Your task to perform on an android device: Open Android settings Image 0: 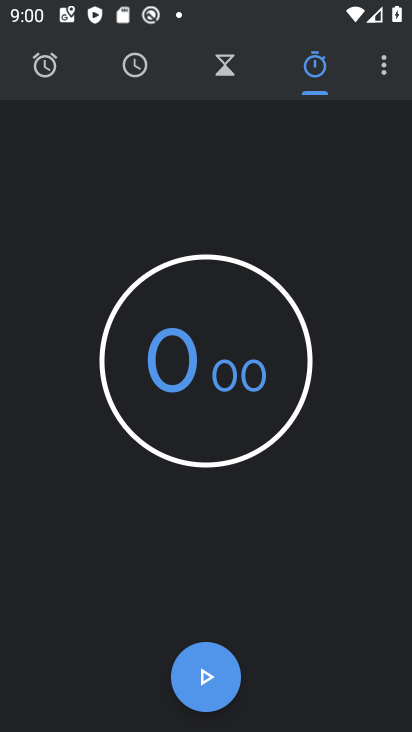
Step 0: press back button
Your task to perform on an android device: Open Android settings Image 1: 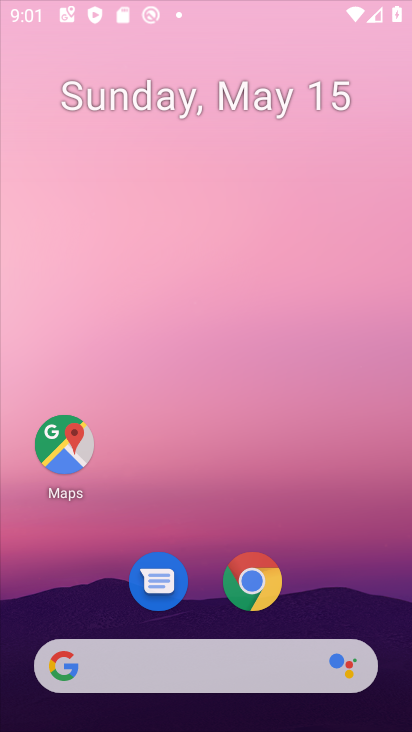
Step 1: press home button
Your task to perform on an android device: Open Android settings Image 2: 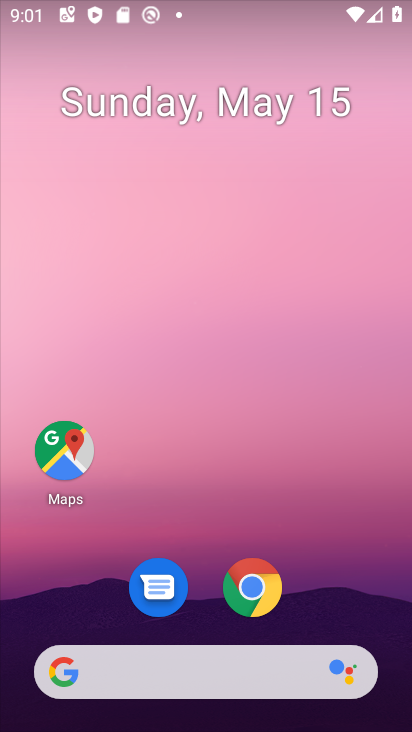
Step 2: drag from (382, 645) to (316, 73)
Your task to perform on an android device: Open Android settings Image 3: 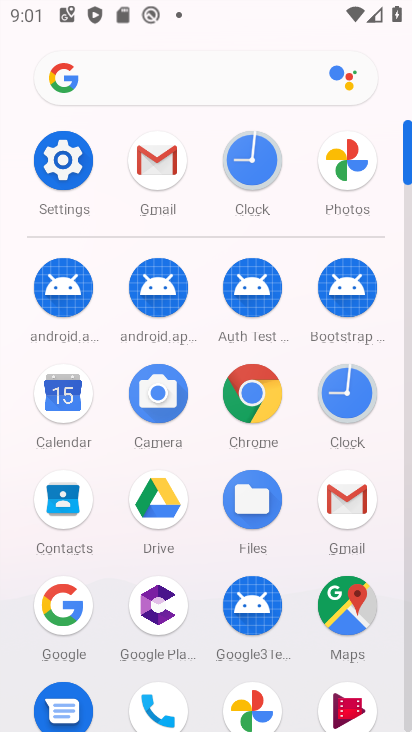
Step 3: click (67, 165)
Your task to perform on an android device: Open Android settings Image 4: 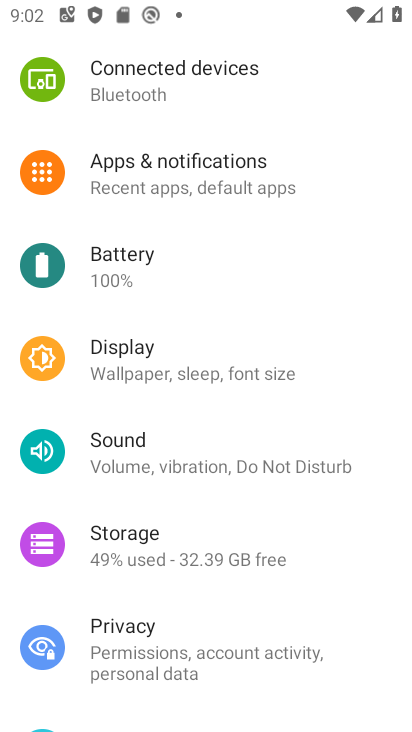
Step 4: drag from (129, 673) to (228, 141)
Your task to perform on an android device: Open Android settings Image 5: 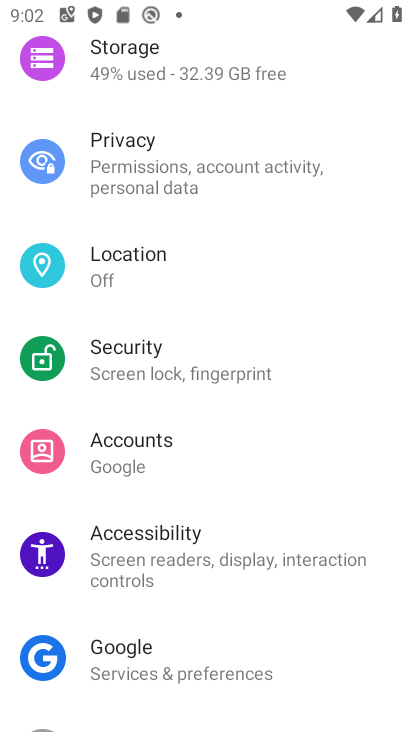
Step 5: drag from (176, 635) to (232, 130)
Your task to perform on an android device: Open Android settings Image 6: 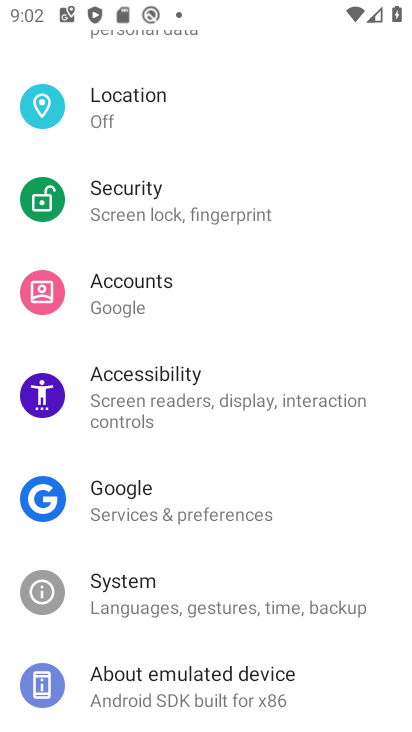
Step 6: click (145, 676)
Your task to perform on an android device: Open Android settings Image 7: 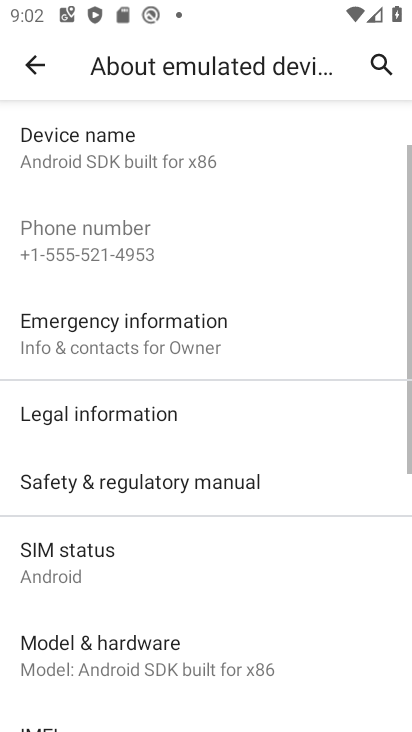
Step 7: drag from (131, 653) to (216, 216)
Your task to perform on an android device: Open Android settings Image 8: 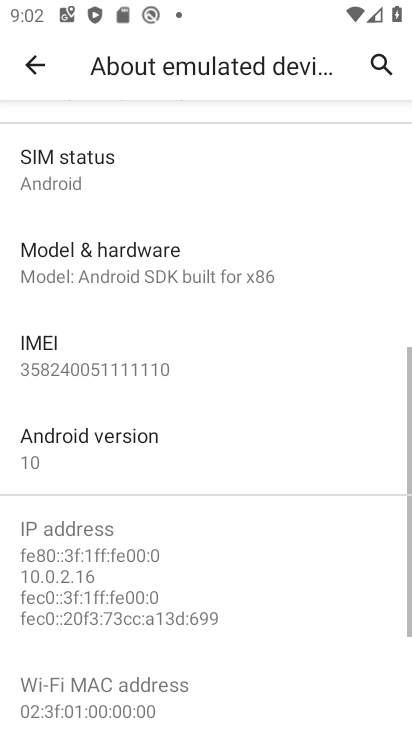
Step 8: click (140, 454)
Your task to perform on an android device: Open Android settings Image 9: 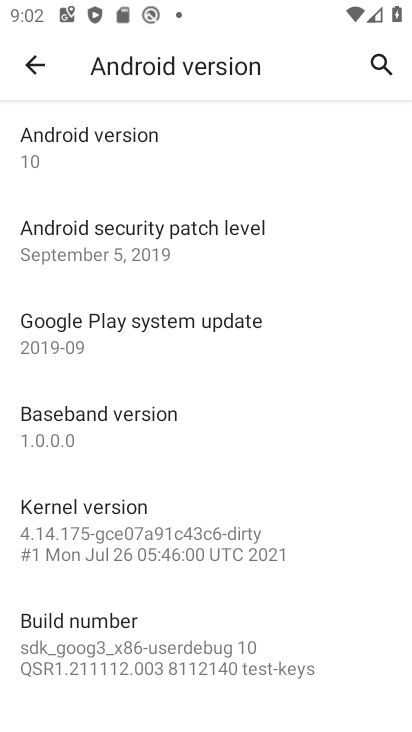
Step 9: task complete